Your task to perform on an android device: all mails in gmail Image 0: 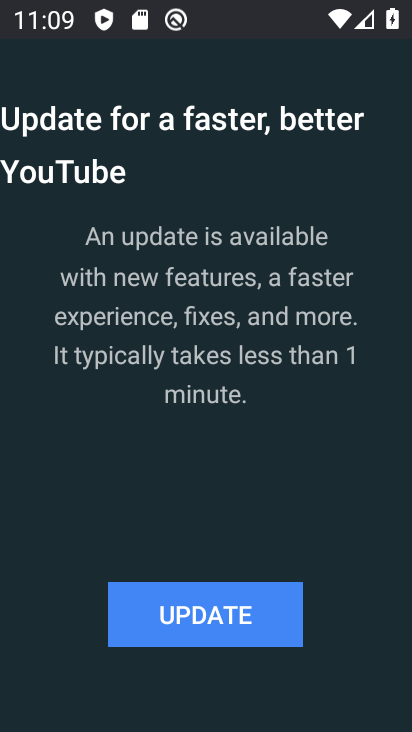
Step 0: press home button
Your task to perform on an android device: all mails in gmail Image 1: 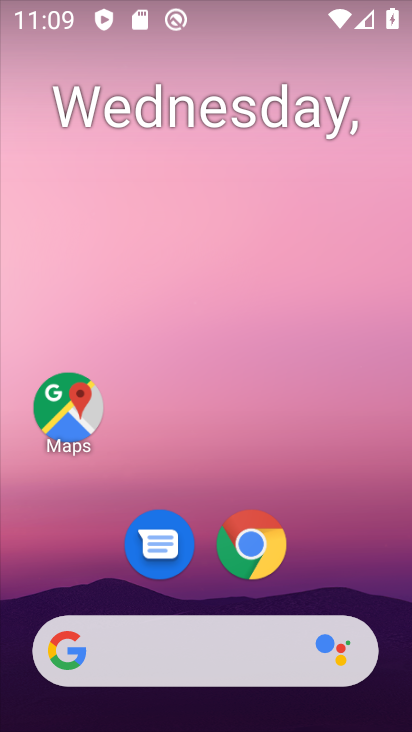
Step 1: drag from (196, 548) to (214, 149)
Your task to perform on an android device: all mails in gmail Image 2: 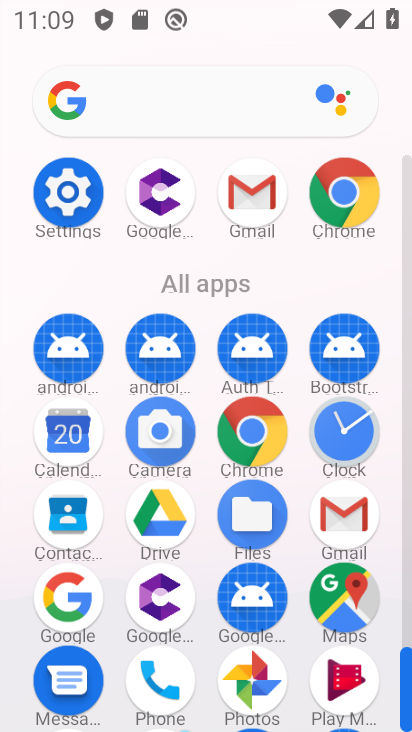
Step 2: click (242, 215)
Your task to perform on an android device: all mails in gmail Image 3: 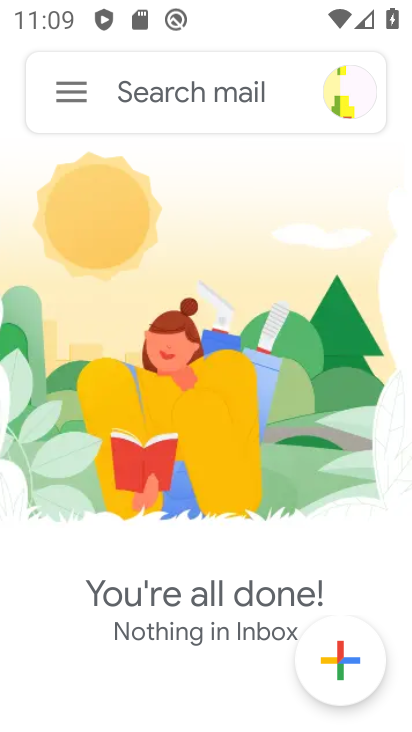
Step 3: click (80, 81)
Your task to perform on an android device: all mails in gmail Image 4: 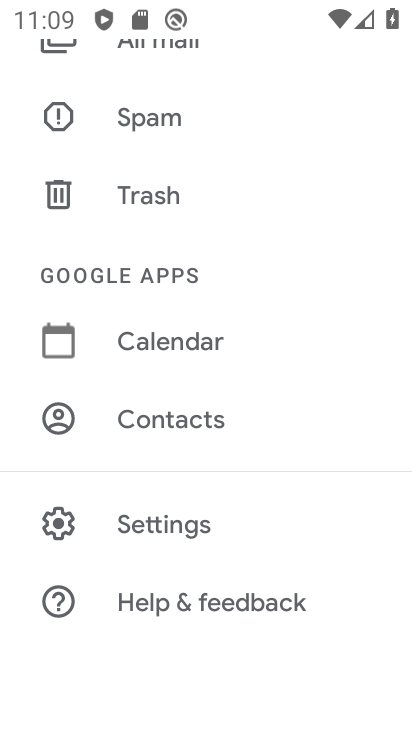
Step 4: drag from (219, 111) to (230, 579)
Your task to perform on an android device: all mails in gmail Image 5: 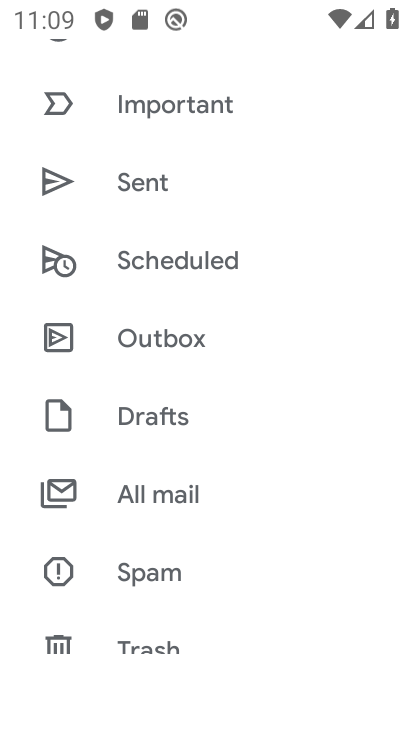
Step 5: drag from (225, 132) to (235, 388)
Your task to perform on an android device: all mails in gmail Image 6: 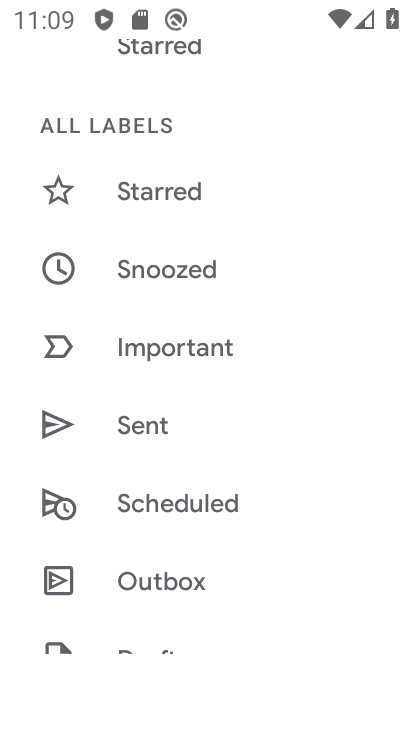
Step 6: drag from (203, 107) to (214, 719)
Your task to perform on an android device: all mails in gmail Image 7: 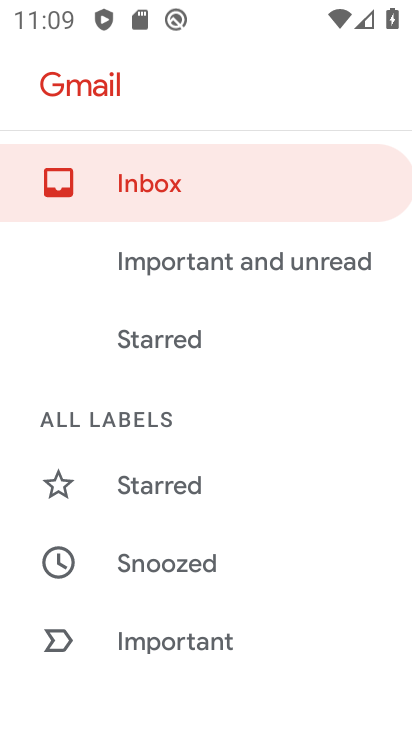
Step 7: drag from (197, 162) to (205, 550)
Your task to perform on an android device: all mails in gmail Image 8: 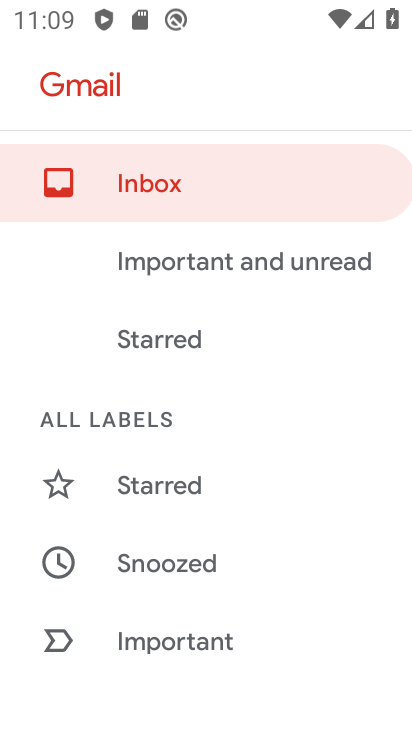
Step 8: click (297, 170)
Your task to perform on an android device: all mails in gmail Image 9: 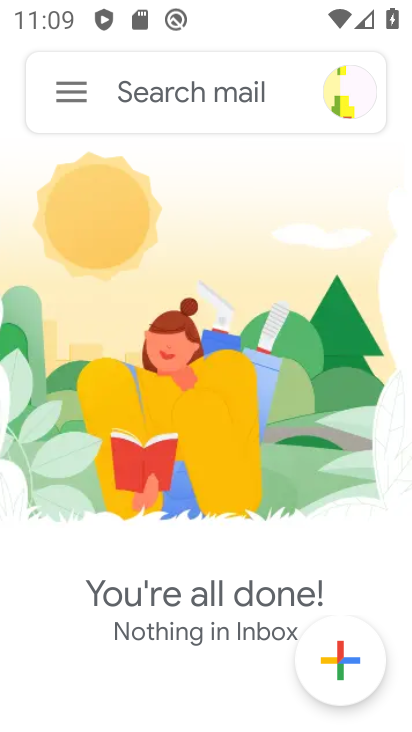
Step 9: task complete